Your task to perform on an android device: toggle wifi Image 0: 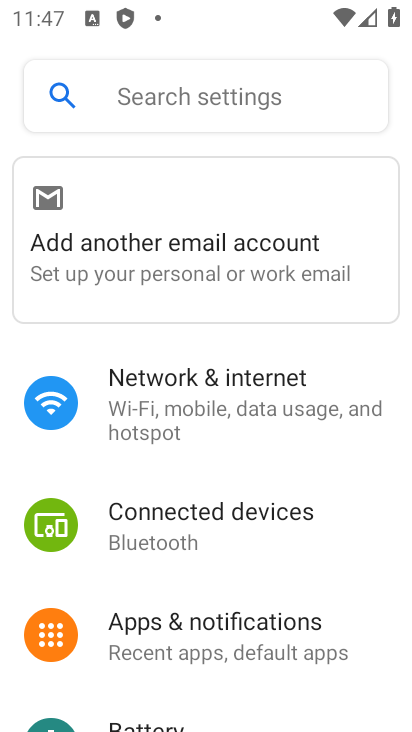
Step 0: click (283, 406)
Your task to perform on an android device: toggle wifi Image 1: 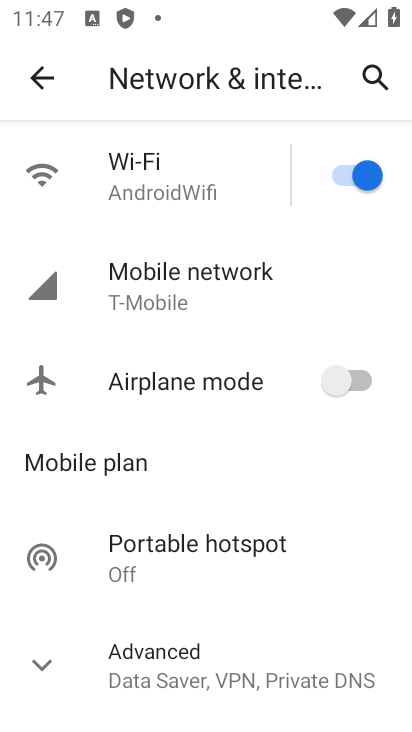
Step 1: click (347, 165)
Your task to perform on an android device: toggle wifi Image 2: 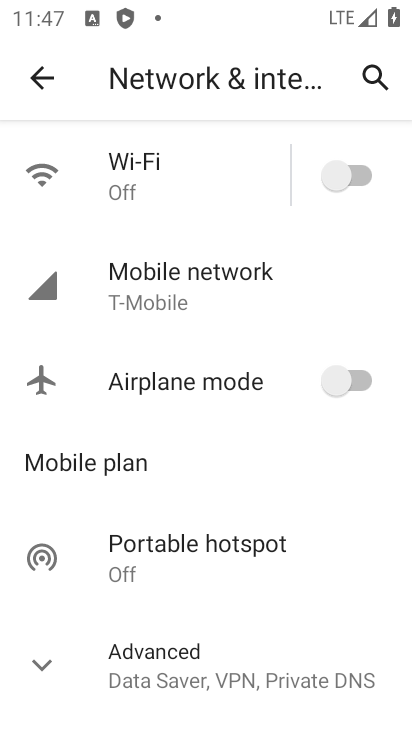
Step 2: task complete